Your task to perform on an android device: Open Google Maps and go to "Timeline" Image 0: 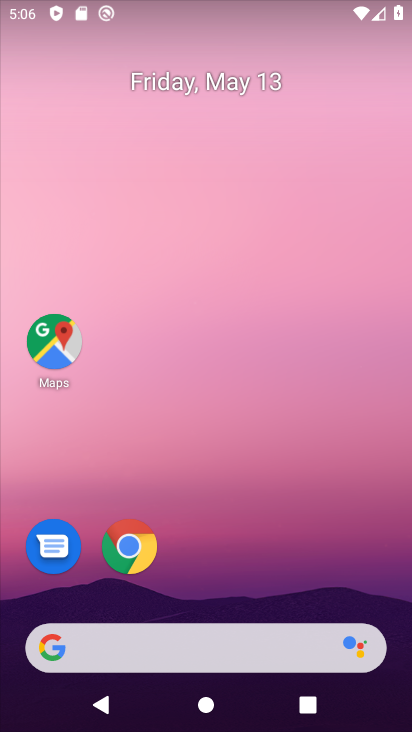
Step 0: click (61, 345)
Your task to perform on an android device: Open Google Maps and go to "Timeline" Image 1: 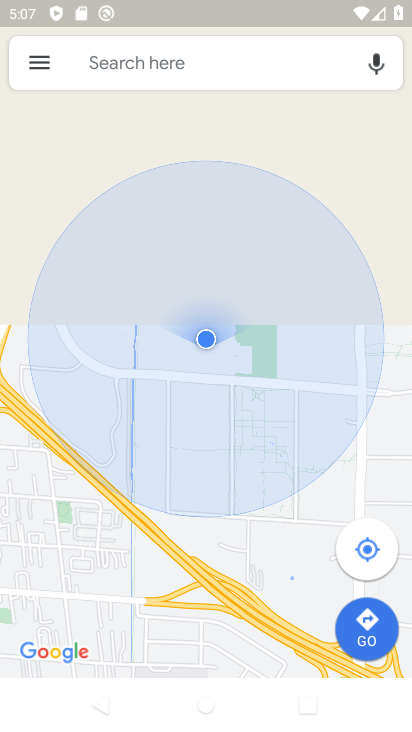
Step 1: click (53, 65)
Your task to perform on an android device: Open Google Maps and go to "Timeline" Image 2: 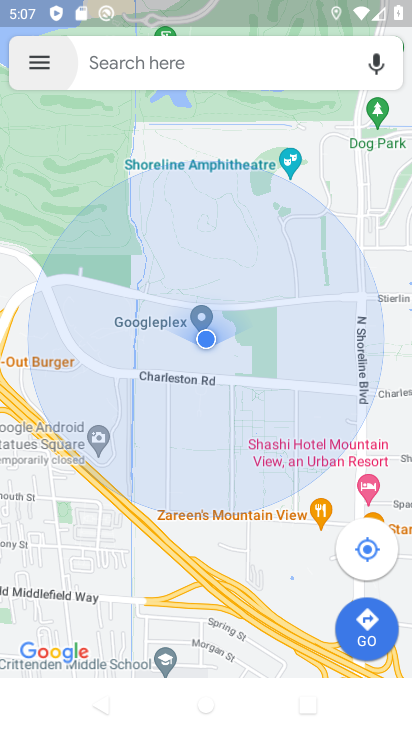
Step 2: click (46, 63)
Your task to perform on an android device: Open Google Maps and go to "Timeline" Image 3: 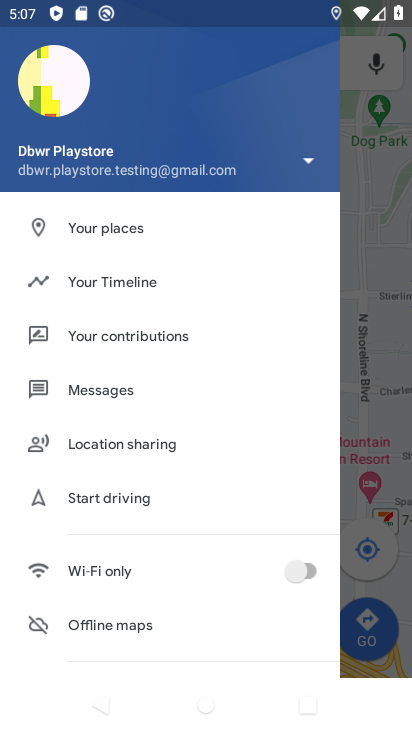
Step 3: click (131, 290)
Your task to perform on an android device: Open Google Maps and go to "Timeline" Image 4: 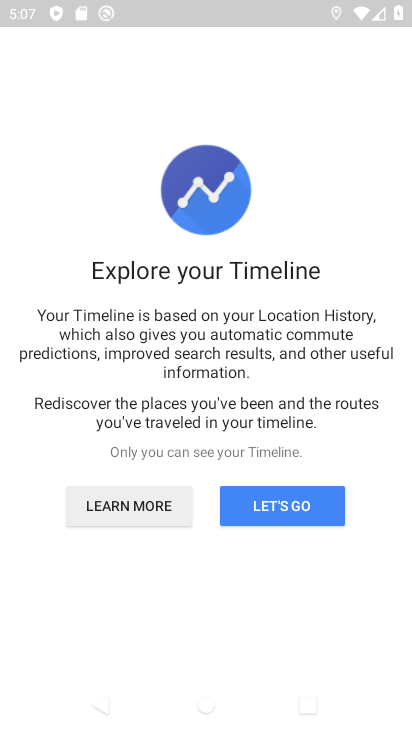
Step 4: click (251, 503)
Your task to perform on an android device: Open Google Maps and go to "Timeline" Image 5: 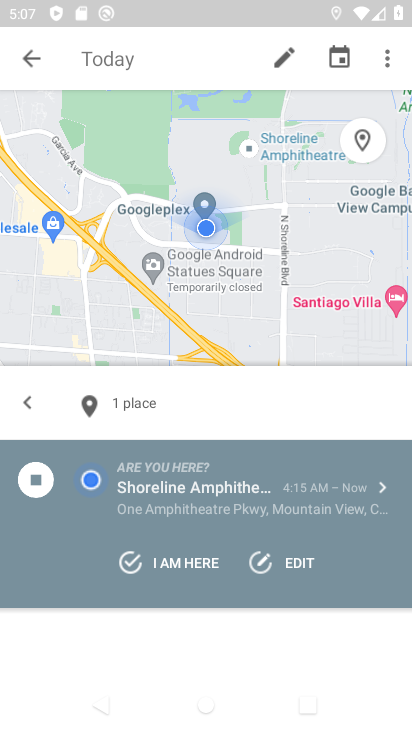
Step 5: task complete